Your task to perform on an android device: allow cookies in the chrome app Image 0: 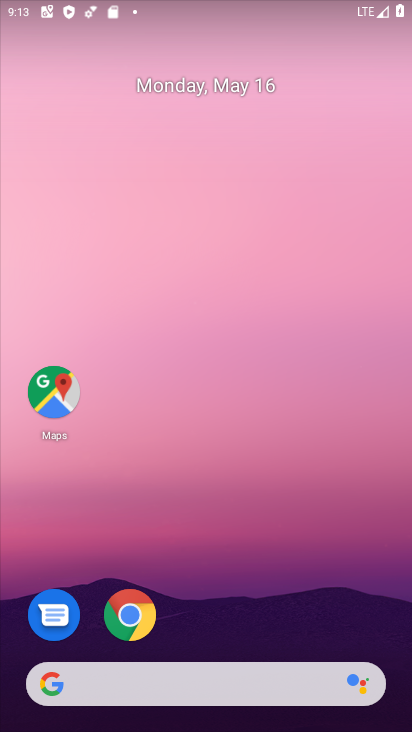
Step 0: drag from (214, 611) to (194, 124)
Your task to perform on an android device: allow cookies in the chrome app Image 1: 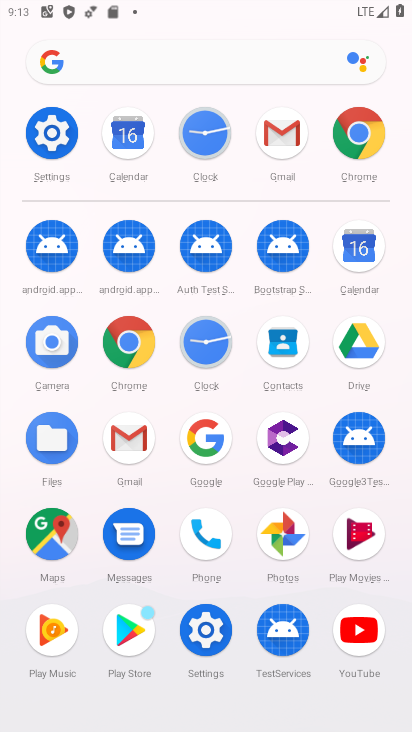
Step 1: click (369, 176)
Your task to perform on an android device: allow cookies in the chrome app Image 2: 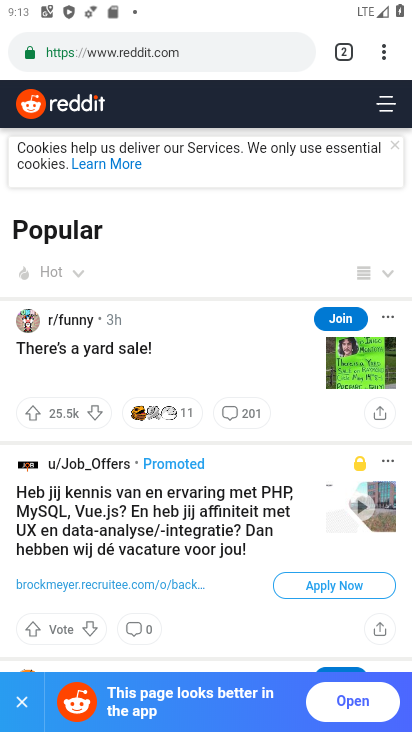
Step 2: click (383, 54)
Your task to perform on an android device: allow cookies in the chrome app Image 3: 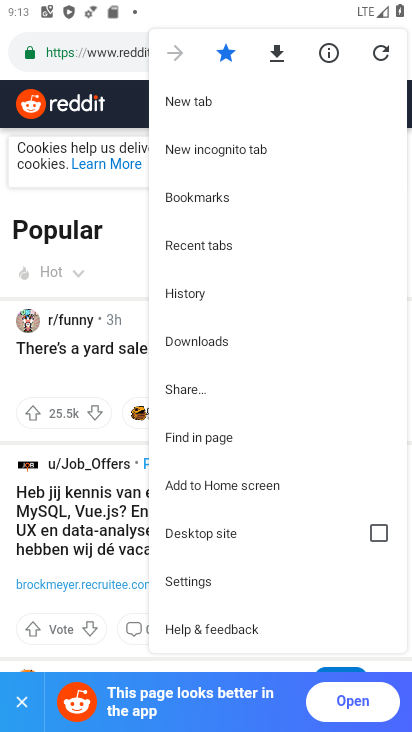
Step 3: click (193, 574)
Your task to perform on an android device: allow cookies in the chrome app Image 4: 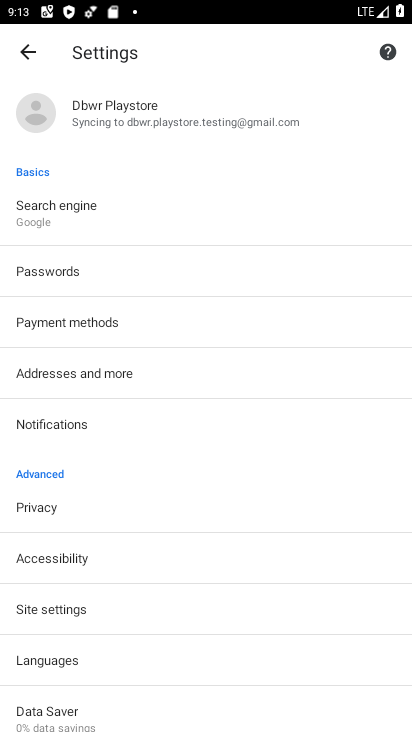
Step 4: click (100, 624)
Your task to perform on an android device: allow cookies in the chrome app Image 5: 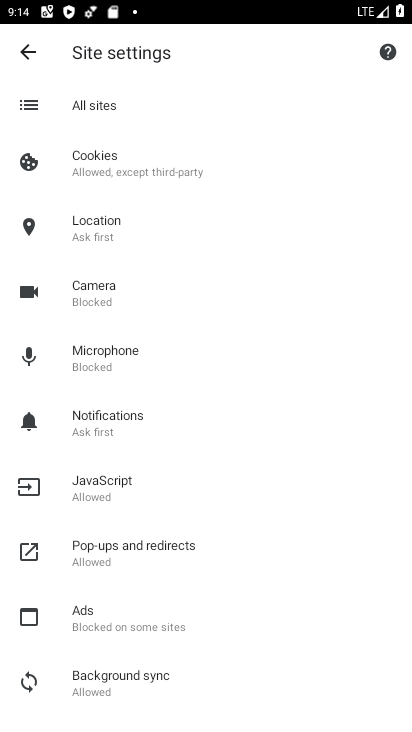
Step 5: click (119, 167)
Your task to perform on an android device: allow cookies in the chrome app Image 6: 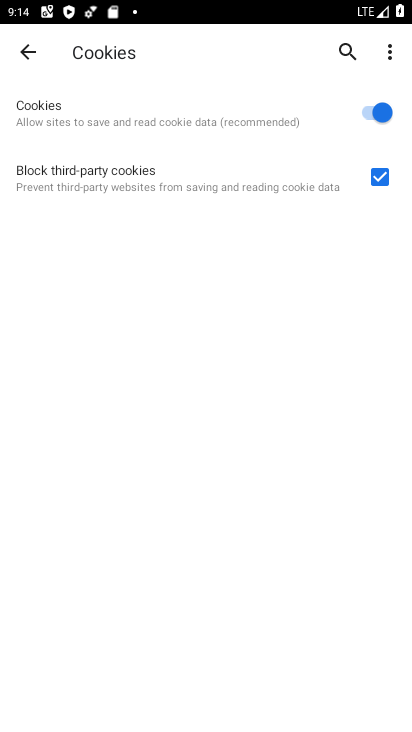
Step 6: task complete